Your task to perform on an android device: turn on sleep mode Image 0: 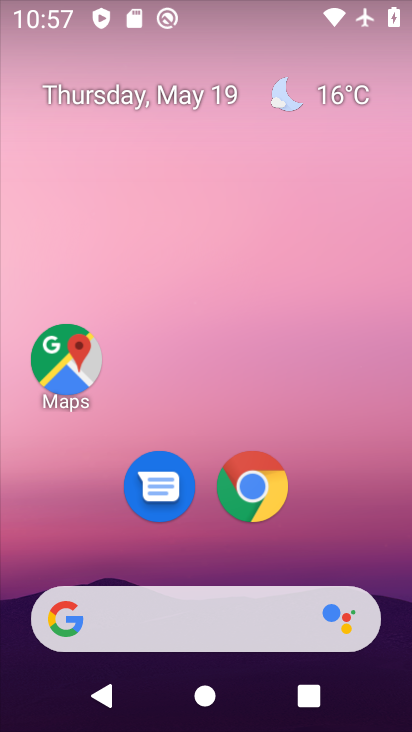
Step 0: drag from (350, 517) to (353, 138)
Your task to perform on an android device: turn on sleep mode Image 1: 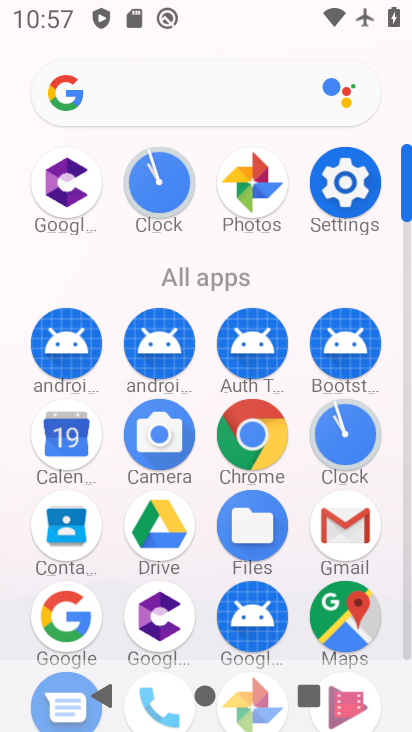
Step 1: click (339, 207)
Your task to perform on an android device: turn on sleep mode Image 2: 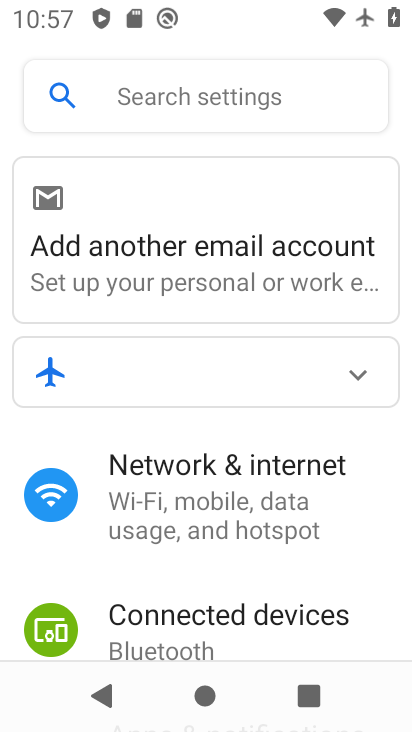
Step 2: drag from (258, 517) to (263, 280)
Your task to perform on an android device: turn on sleep mode Image 3: 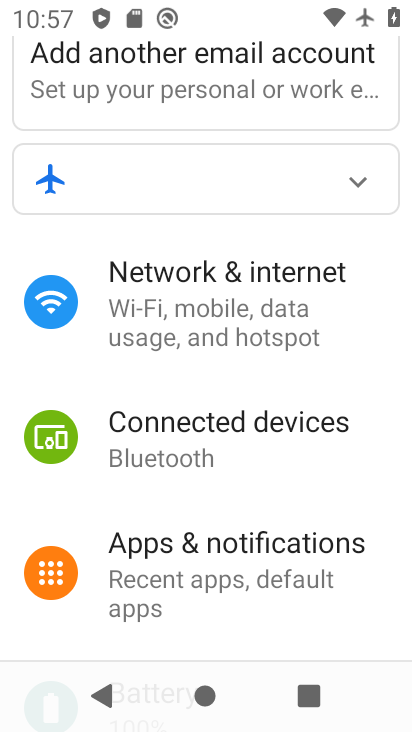
Step 3: drag from (229, 535) to (276, 194)
Your task to perform on an android device: turn on sleep mode Image 4: 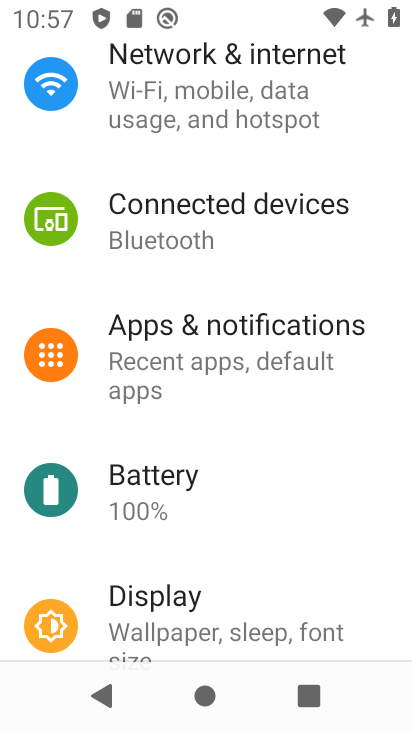
Step 4: drag from (182, 515) to (213, 313)
Your task to perform on an android device: turn on sleep mode Image 5: 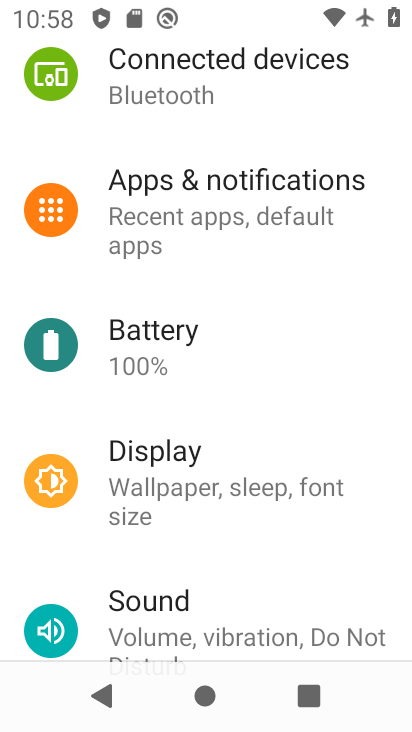
Step 5: click (237, 468)
Your task to perform on an android device: turn on sleep mode Image 6: 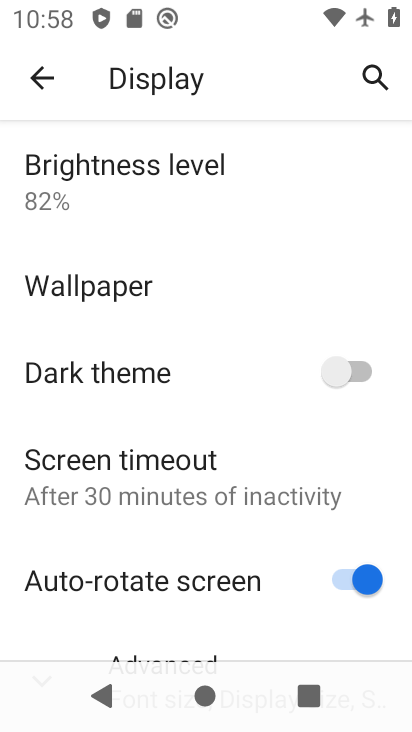
Step 6: click (213, 509)
Your task to perform on an android device: turn on sleep mode Image 7: 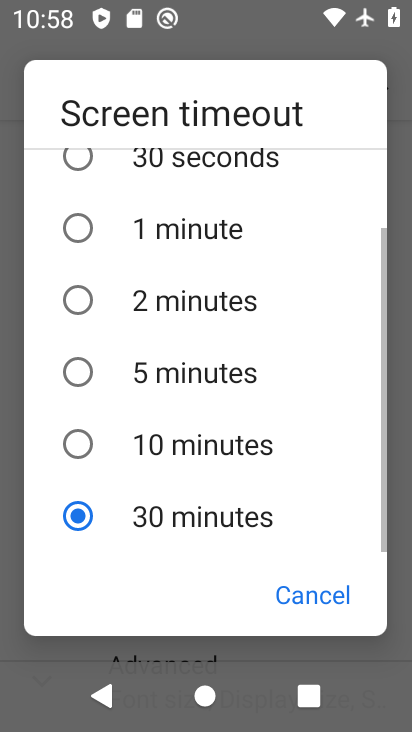
Step 7: click (225, 273)
Your task to perform on an android device: turn on sleep mode Image 8: 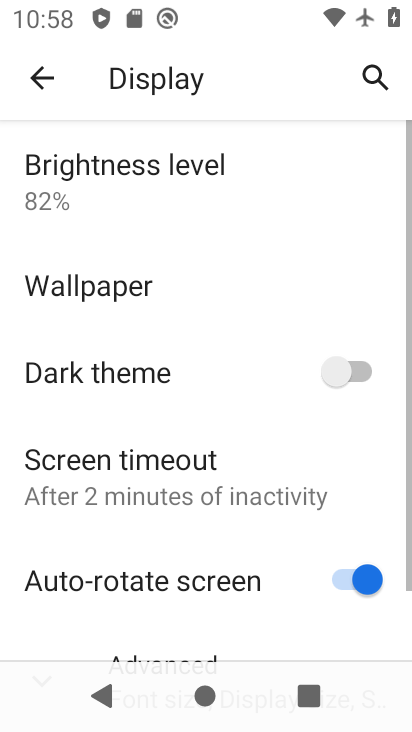
Step 8: task complete